Your task to perform on an android device: Go to Android settings Image 0: 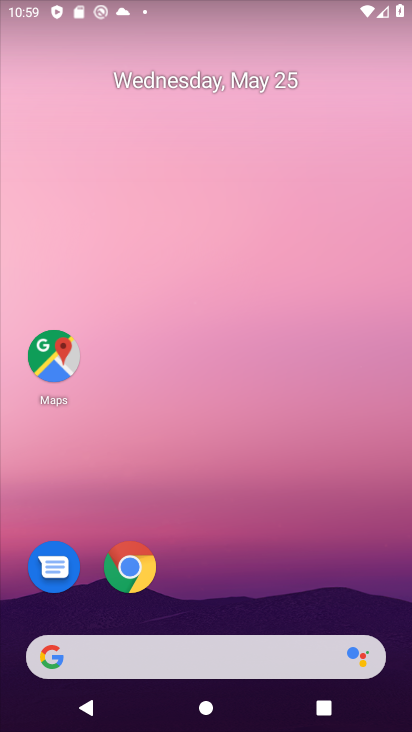
Step 0: drag from (218, 611) to (271, 181)
Your task to perform on an android device: Go to Android settings Image 1: 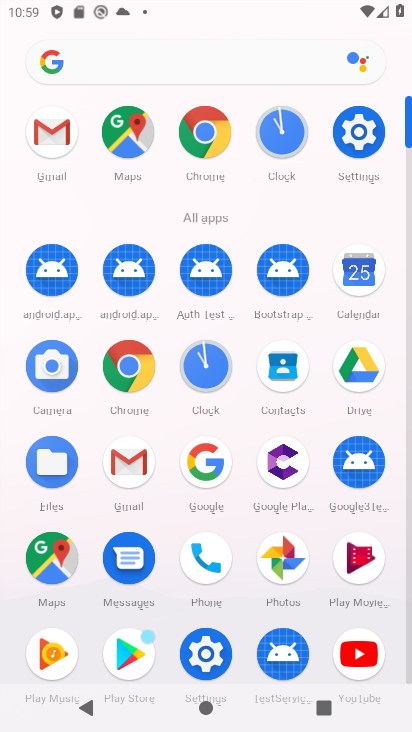
Step 1: click (362, 159)
Your task to perform on an android device: Go to Android settings Image 2: 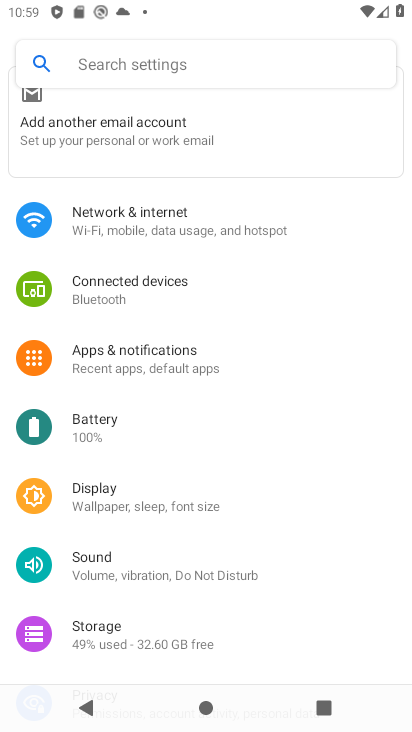
Step 2: drag from (200, 603) to (260, 140)
Your task to perform on an android device: Go to Android settings Image 3: 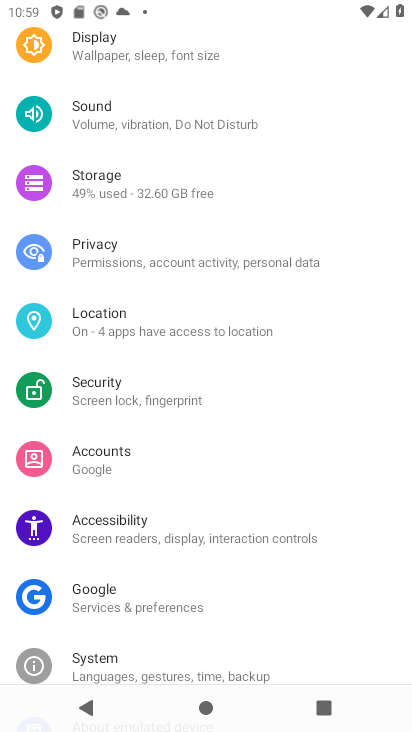
Step 3: drag from (233, 643) to (260, 365)
Your task to perform on an android device: Go to Android settings Image 4: 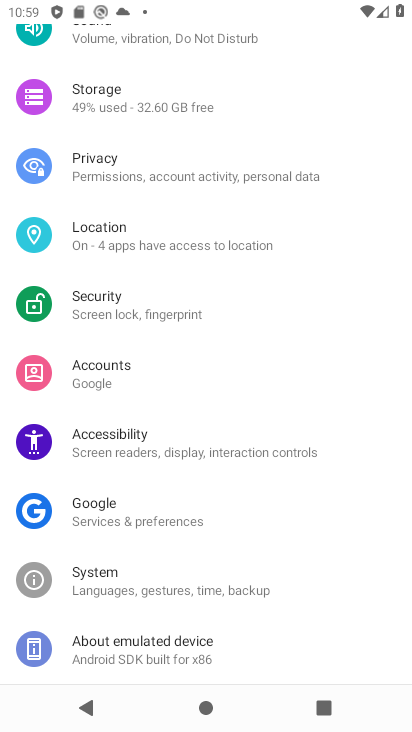
Step 4: click (160, 643)
Your task to perform on an android device: Go to Android settings Image 5: 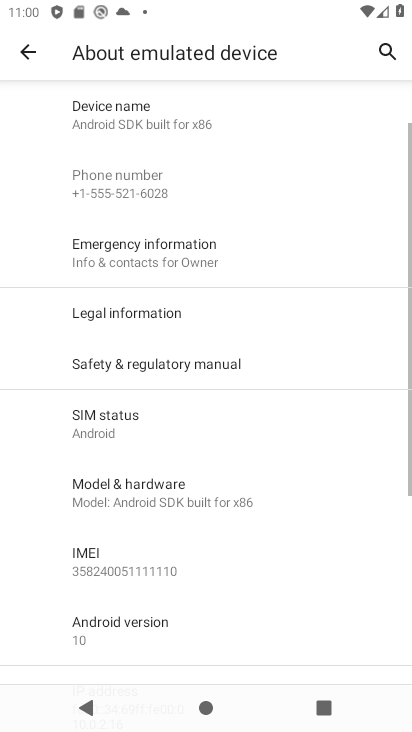
Step 5: click (117, 626)
Your task to perform on an android device: Go to Android settings Image 6: 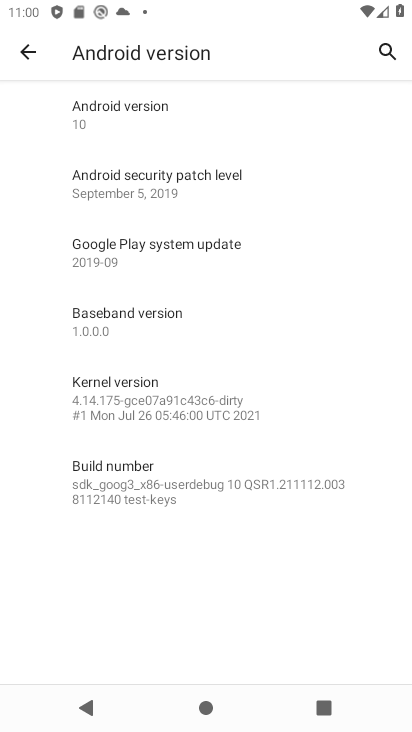
Step 6: task complete